Your task to perform on an android device: turn off improve location accuracy Image 0: 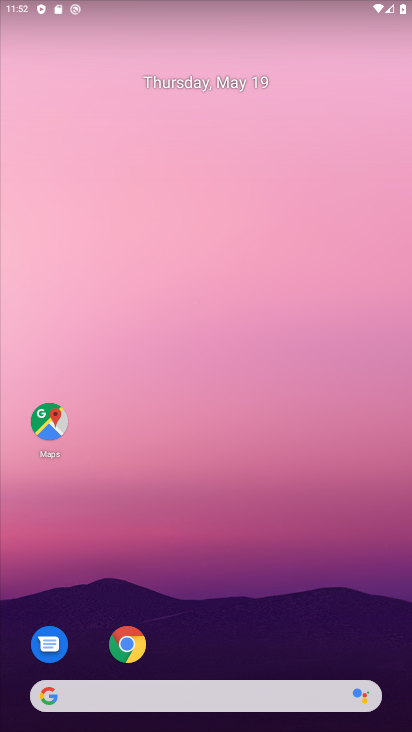
Step 0: drag from (307, 496) to (239, 89)
Your task to perform on an android device: turn off improve location accuracy Image 1: 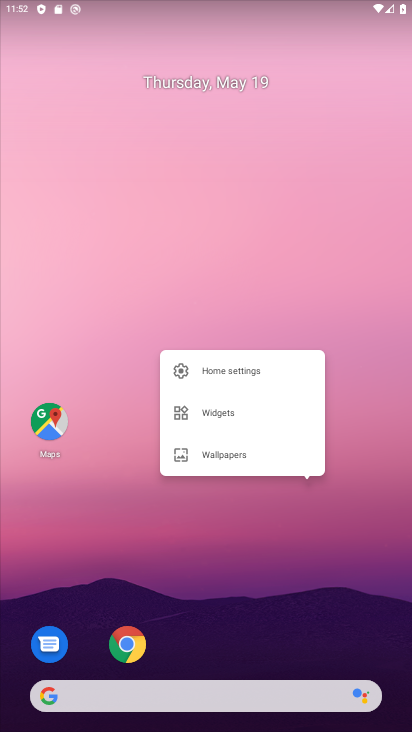
Step 1: click (244, 574)
Your task to perform on an android device: turn off improve location accuracy Image 2: 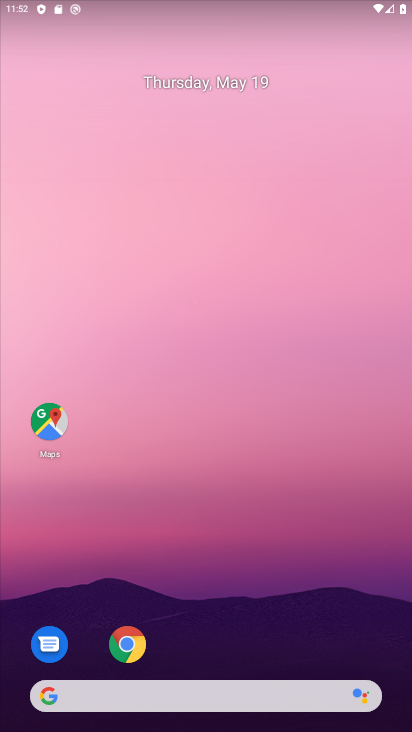
Step 2: drag from (192, 524) to (152, 0)
Your task to perform on an android device: turn off improve location accuracy Image 3: 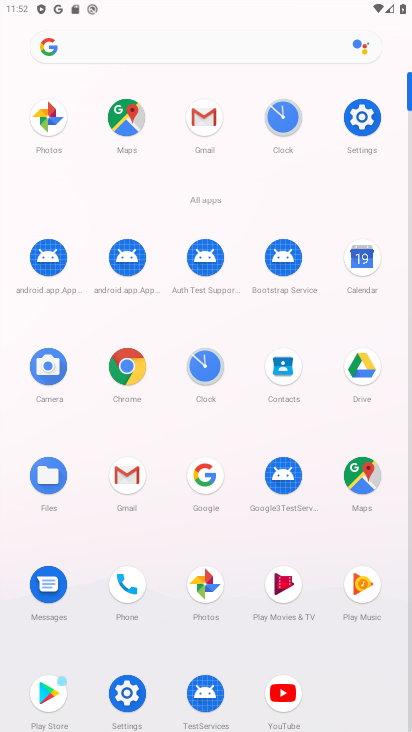
Step 3: click (366, 113)
Your task to perform on an android device: turn off improve location accuracy Image 4: 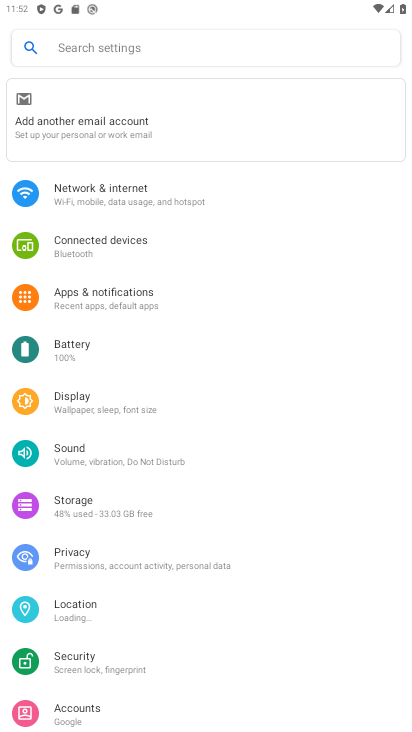
Step 4: click (73, 598)
Your task to perform on an android device: turn off improve location accuracy Image 5: 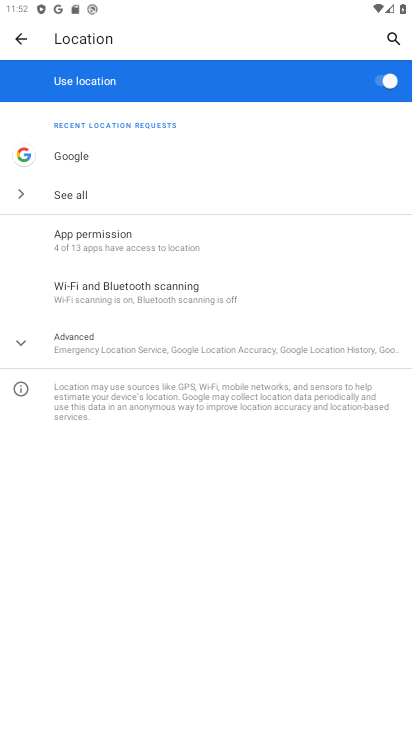
Step 5: click (46, 335)
Your task to perform on an android device: turn off improve location accuracy Image 6: 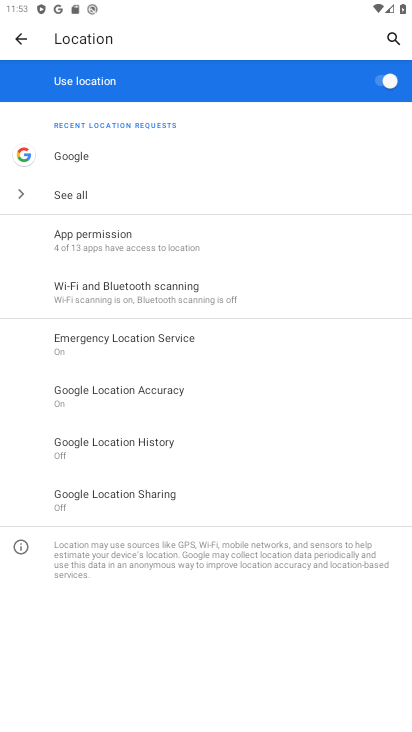
Step 6: click (143, 385)
Your task to perform on an android device: turn off improve location accuracy Image 7: 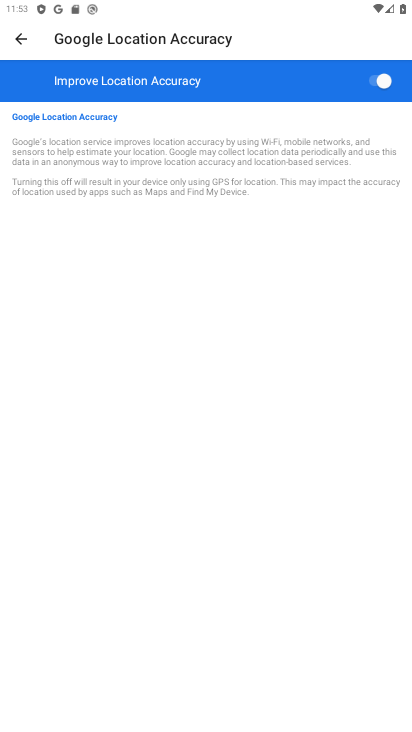
Step 7: click (373, 82)
Your task to perform on an android device: turn off improve location accuracy Image 8: 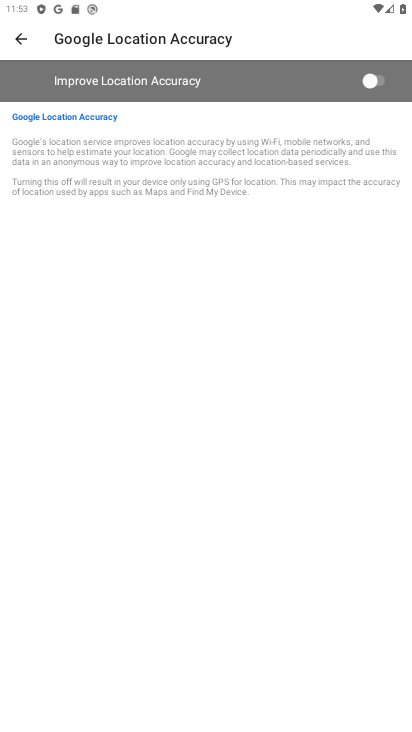
Step 8: task complete